Your task to perform on an android device: toggle wifi Image 0: 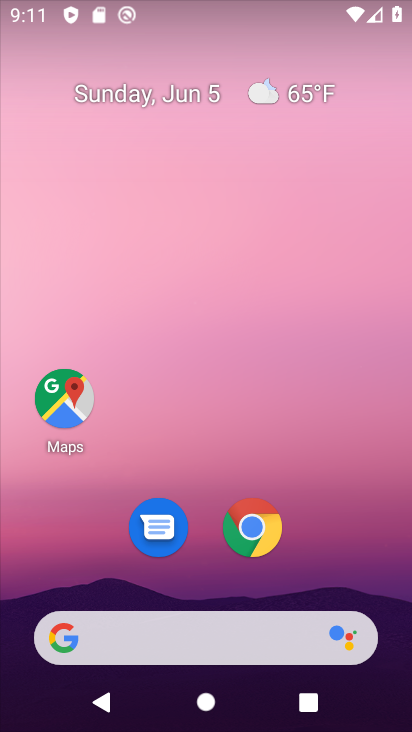
Step 0: drag from (66, 19) to (153, 686)
Your task to perform on an android device: toggle wifi Image 1: 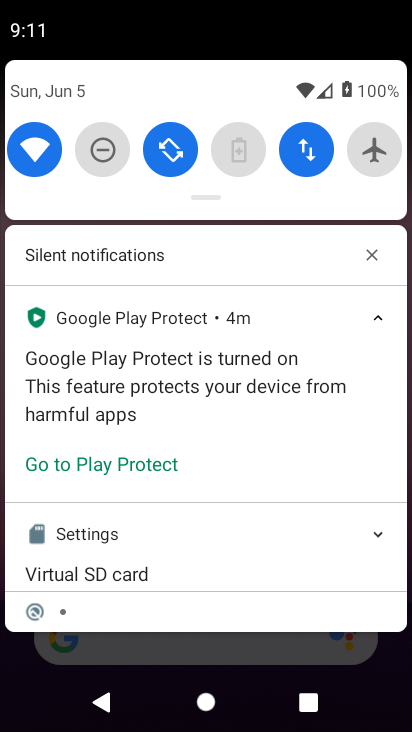
Step 1: click (45, 157)
Your task to perform on an android device: toggle wifi Image 2: 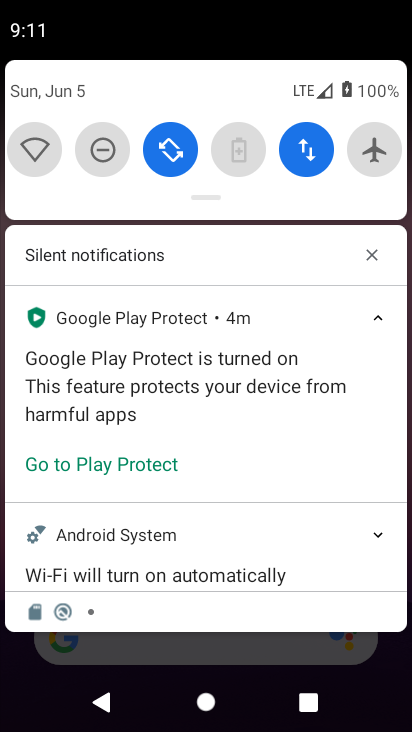
Step 2: task complete